Your task to perform on an android device: turn on the 12-hour format for clock Image 0: 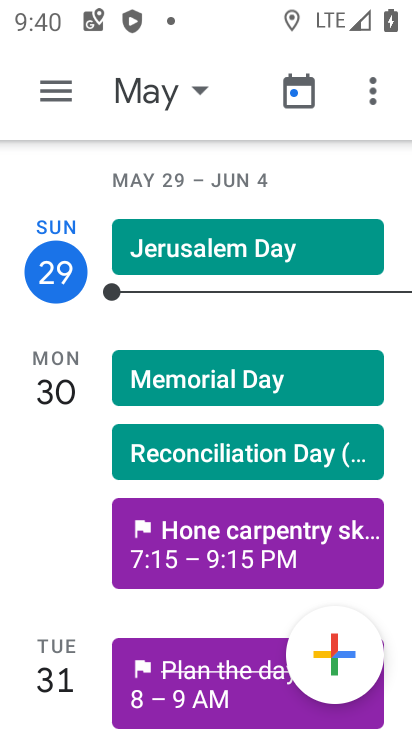
Step 0: press home button
Your task to perform on an android device: turn on the 12-hour format for clock Image 1: 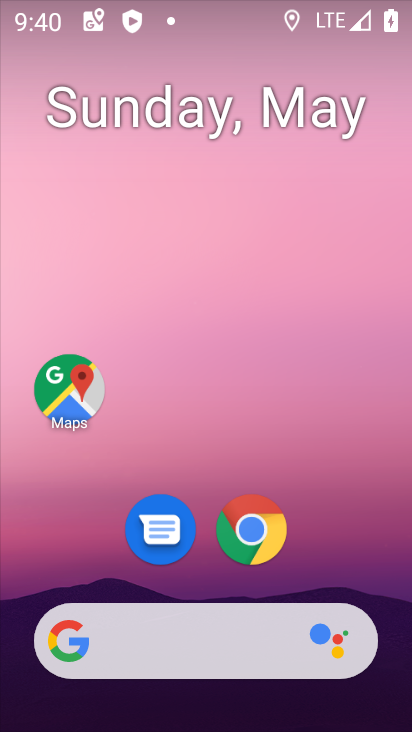
Step 1: drag from (361, 556) to (346, 274)
Your task to perform on an android device: turn on the 12-hour format for clock Image 2: 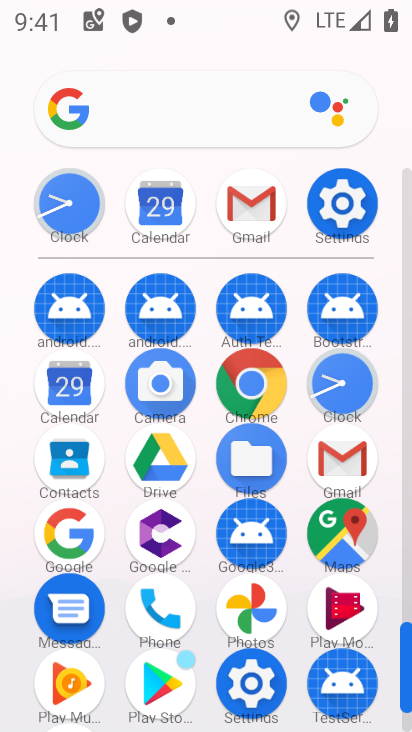
Step 2: click (93, 207)
Your task to perform on an android device: turn on the 12-hour format for clock Image 3: 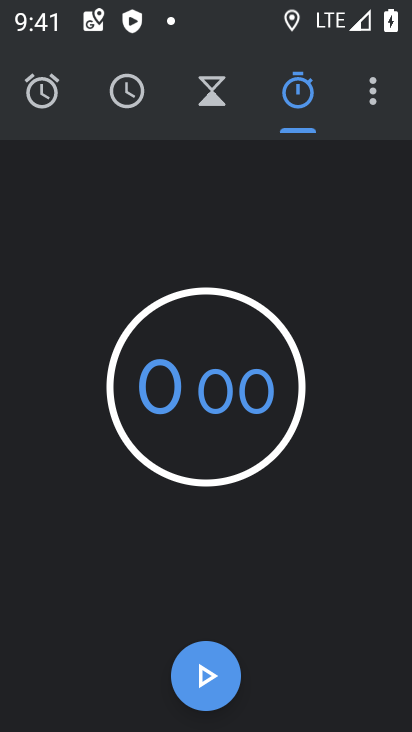
Step 3: click (373, 119)
Your task to perform on an android device: turn on the 12-hour format for clock Image 4: 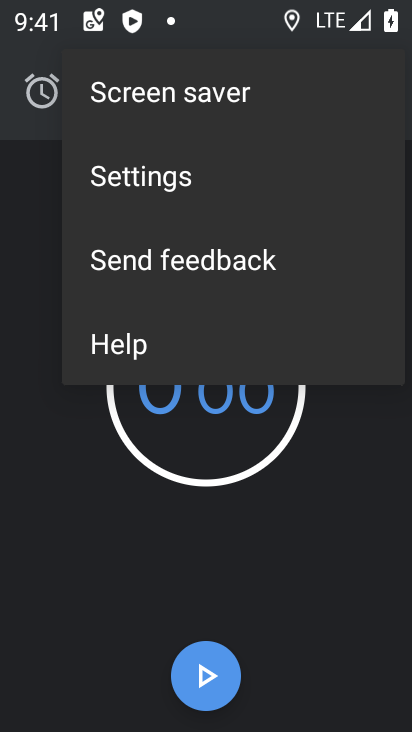
Step 4: click (228, 171)
Your task to perform on an android device: turn on the 12-hour format for clock Image 5: 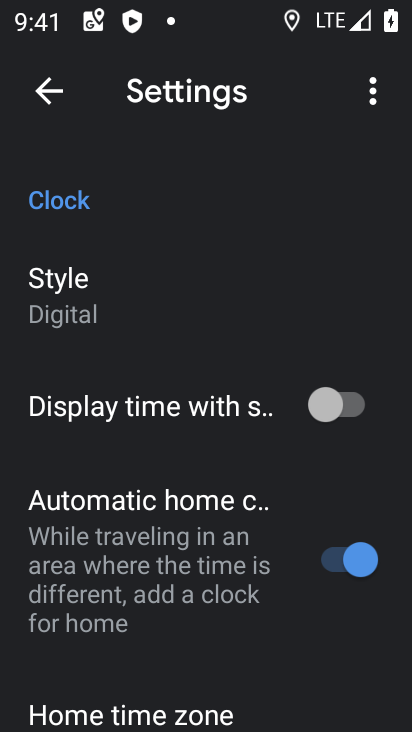
Step 5: drag from (240, 622) to (248, 389)
Your task to perform on an android device: turn on the 12-hour format for clock Image 6: 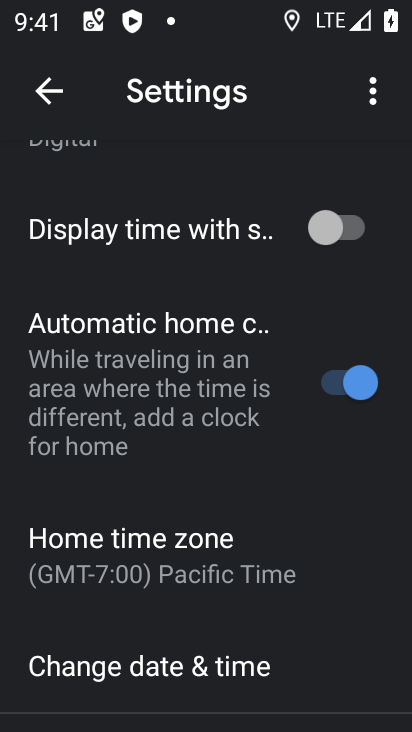
Step 6: click (264, 658)
Your task to perform on an android device: turn on the 12-hour format for clock Image 7: 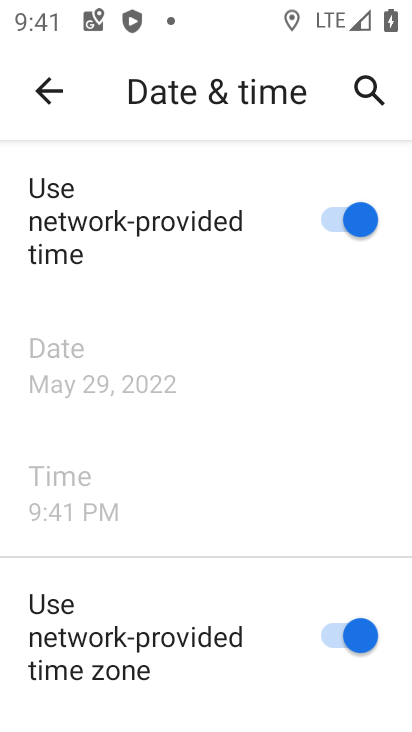
Step 7: task complete